Your task to perform on an android device: Open maps Image 0: 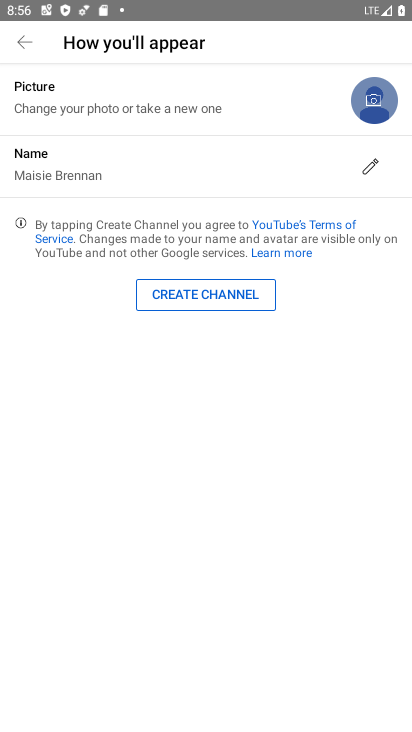
Step 0: press home button
Your task to perform on an android device: Open maps Image 1: 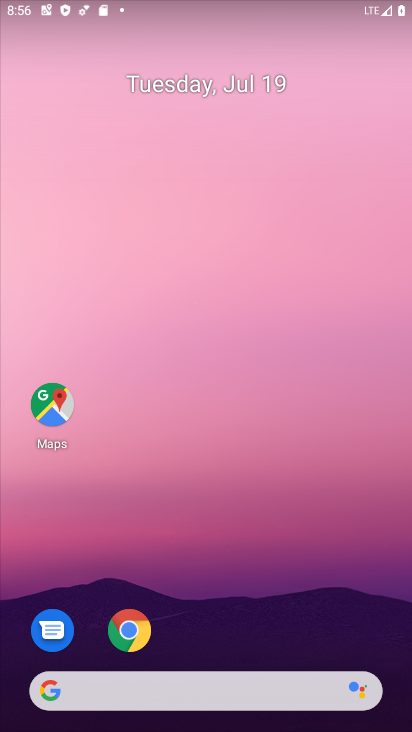
Step 1: click (51, 411)
Your task to perform on an android device: Open maps Image 2: 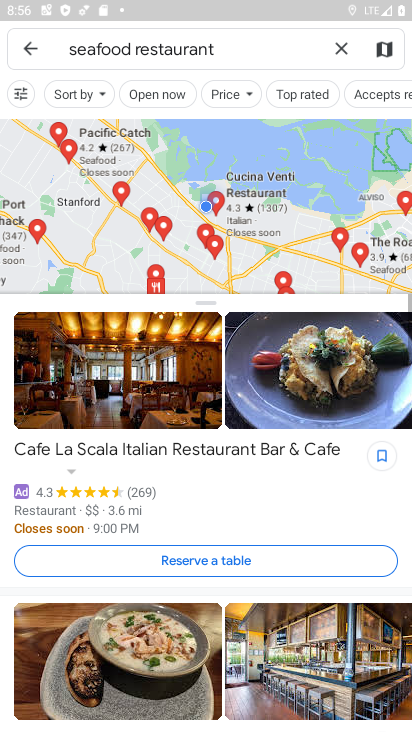
Step 2: task complete